Your task to perform on an android device: turn vacation reply on in the gmail app Image 0: 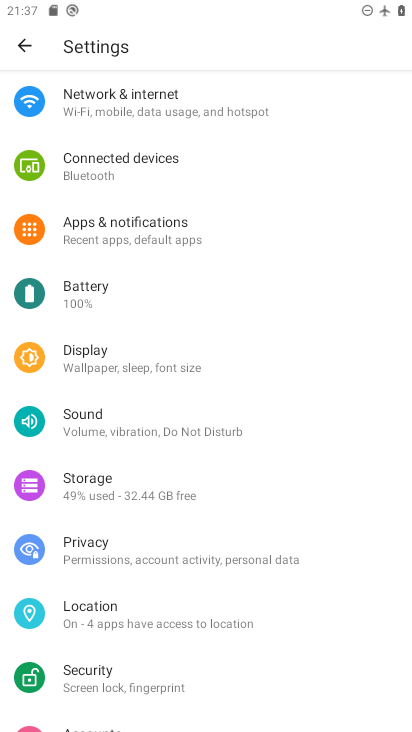
Step 0: press home button
Your task to perform on an android device: turn vacation reply on in the gmail app Image 1: 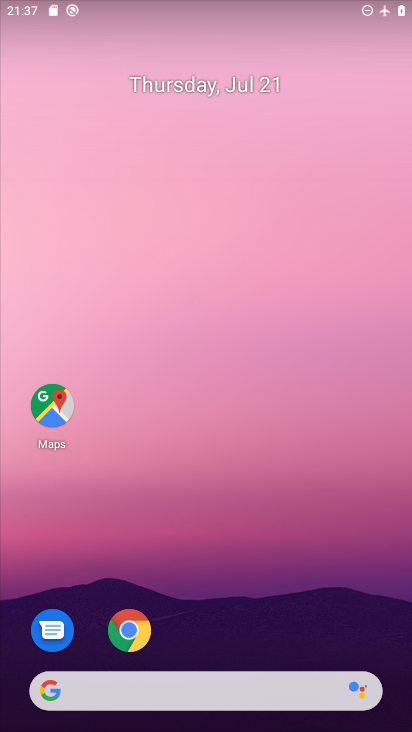
Step 1: drag from (333, 641) to (318, 114)
Your task to perform on an android device: turn vacation reply on in the gmail app Image 2: 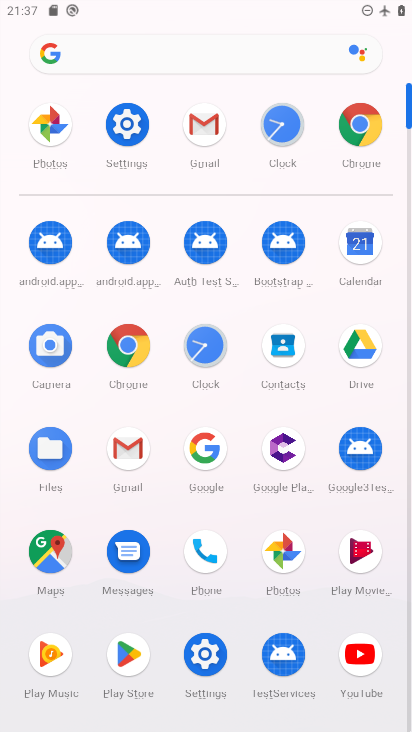
Step 2: click (122, 346)
Your task to perform on an android device: turn vacation reply on in the gmail app Image 3: 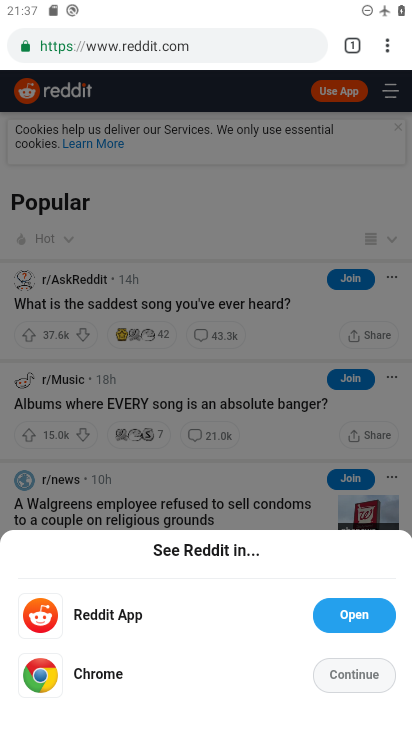
Step 3: press home button
Your task to perform on an android device: turn vacation reply on in the gmail app Image 4: 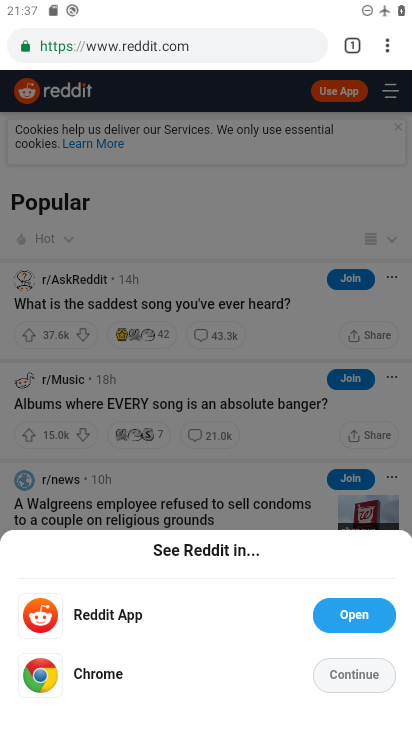
Step 4: press home button
Your task to perform on an android device: turn vacation reply on in the gmail app Image 5: 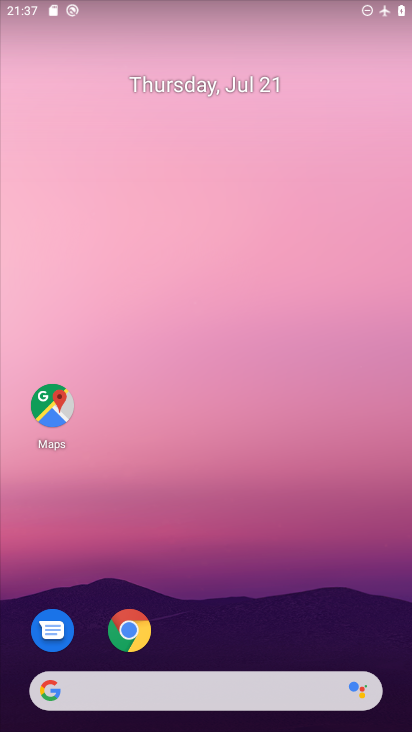
Step 5: drag from (305, 464) to (326, 106)
Your task to perform on an android device: turn vacation reply on in the gmail app Image 6: 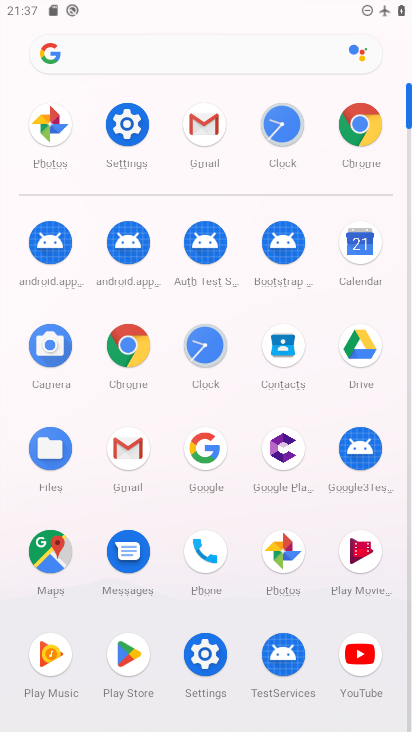
Step 6: click (200, 138)
Your task to perform on an android device: turn vacation reply on in the gmail app Image 7: 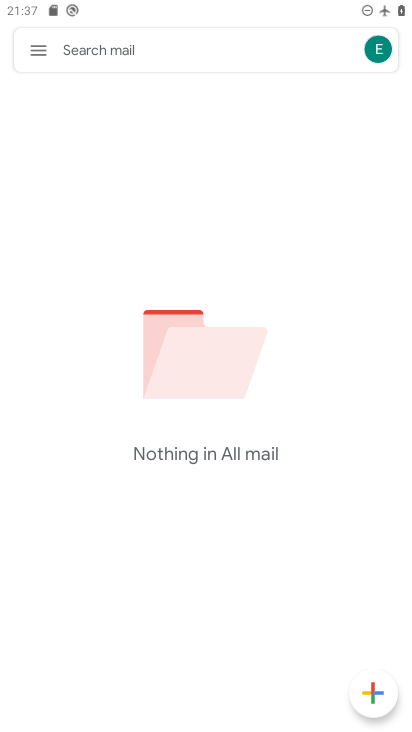
Step 7: click (27, 56)
Your task to perform on an android device: turn vacation reply on in the gmail app Image 8: 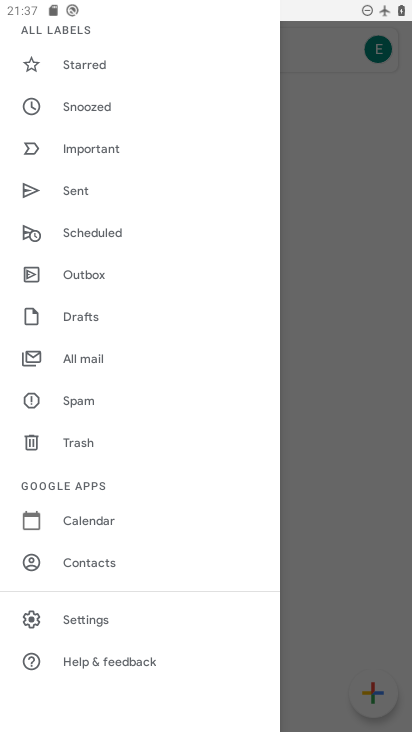
Step 8: click (91, 624)
Your task to perform on an android device: turn vacation reply on in the gmail app Image 9: 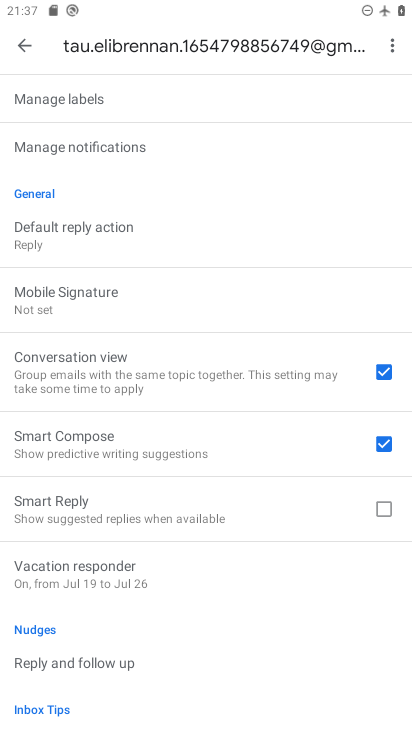
Step 9: drag from (258, 149) to (291, 172)
Your task to perform on an android device: turn vacation reply on in the gmail app Image 10: 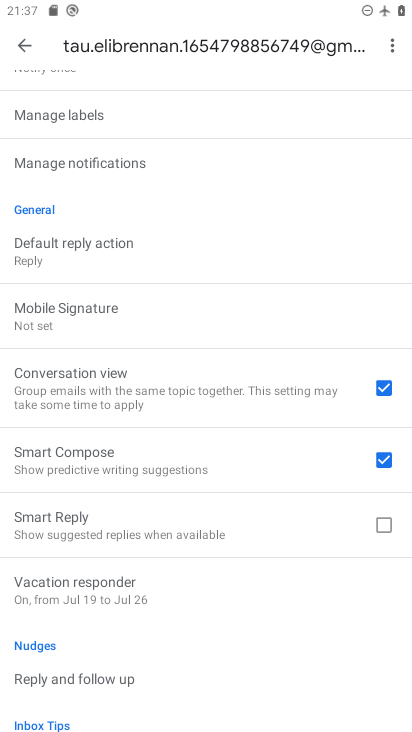
Step 10: click (138, 586)
Your task to perform on an android device: turn vacation reply on in the gmail app Image 11: 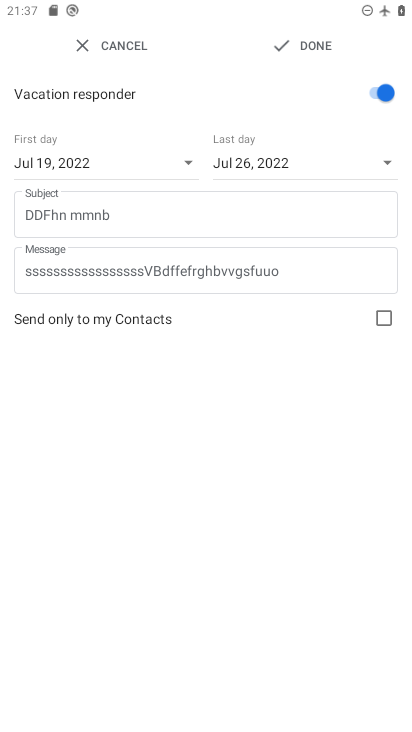
Step 11: task complete